Your task to perform on an android device: turn on the 24-hour format for clock Image 0: 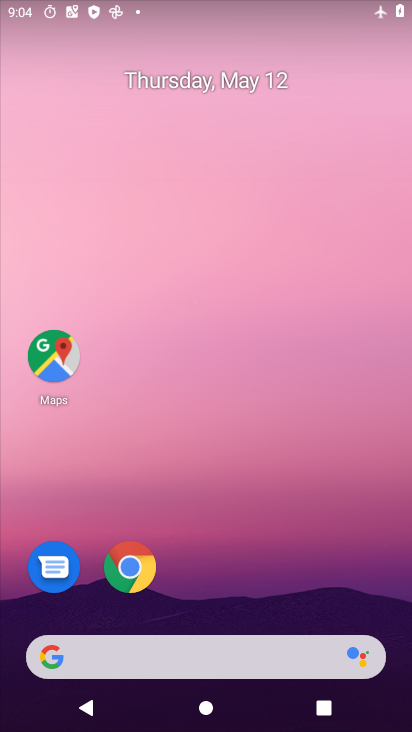
Step 0: drag from (243, 663) to (254, 177)
Your task to perform on an android device: turn on the 24-hour format for clock Image 1: 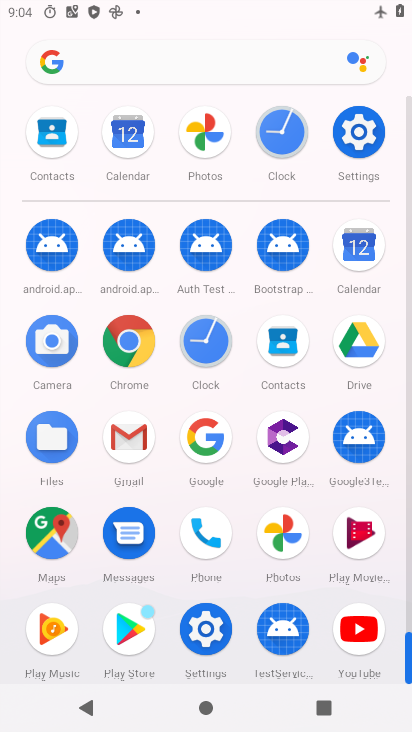
Step 1: click (220, 355)
Your task to perform on an android device: turn on the 24-hour format for clock Image 2: 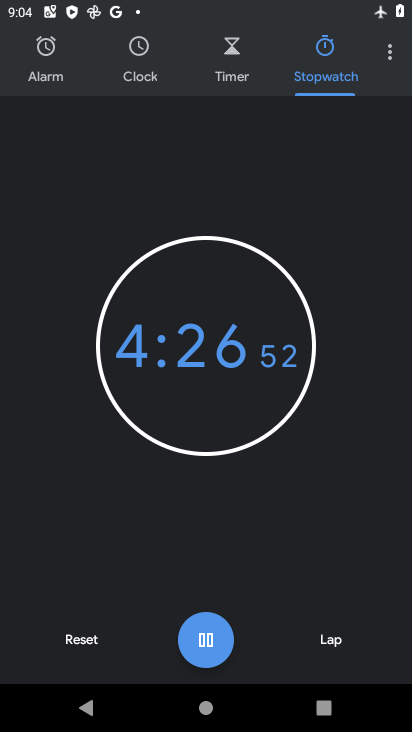
Step 2: click (395, 61)
Your task to perform on an android device: turn on the 24-hour format for clock Image 3: 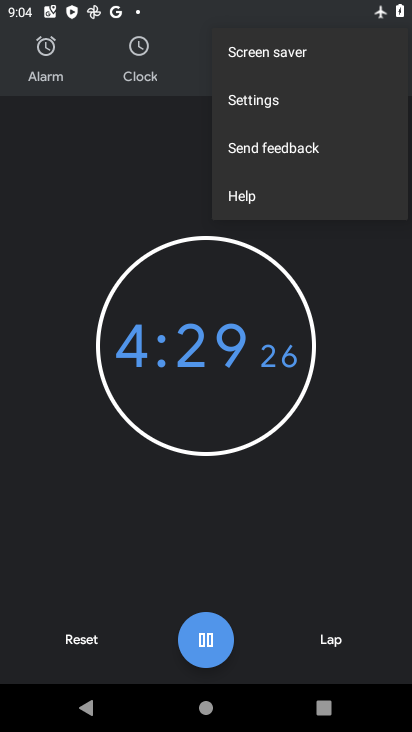
Step 3: click (278, 100)
Your task to perform on an android device: turn on the 24-hour format for clock Image 4: 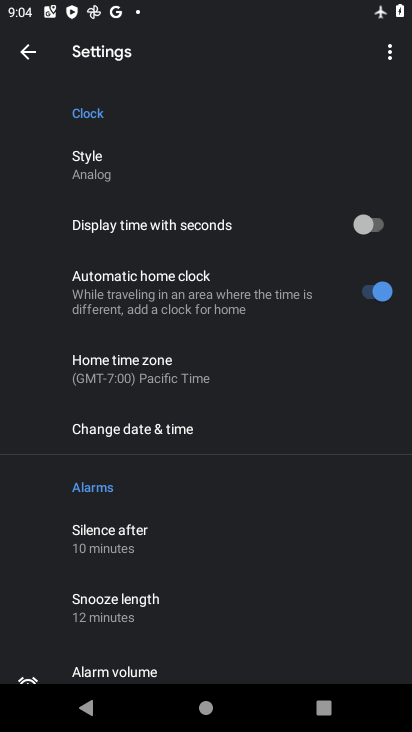
Step 4: click (228, 428)
Your task to perform on an android device: turn on the 24-hour format for clock Image 5: 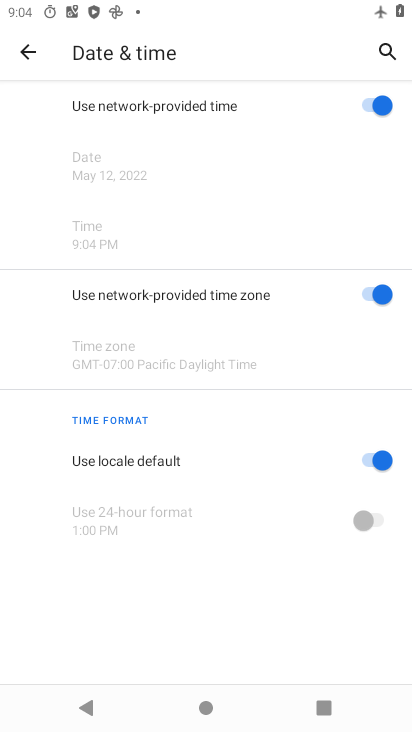
Step 5: task complete